Your task to perform on an android device: Open Google Chrome and open the bookmarks view Image 0: 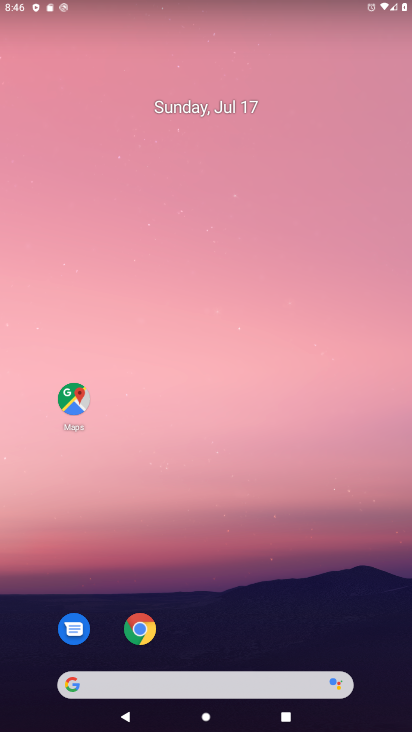
Step 0: click (144, 634)
Your task to perform on an android device: Open Google Chrome and open the bookmarks view Image 1: 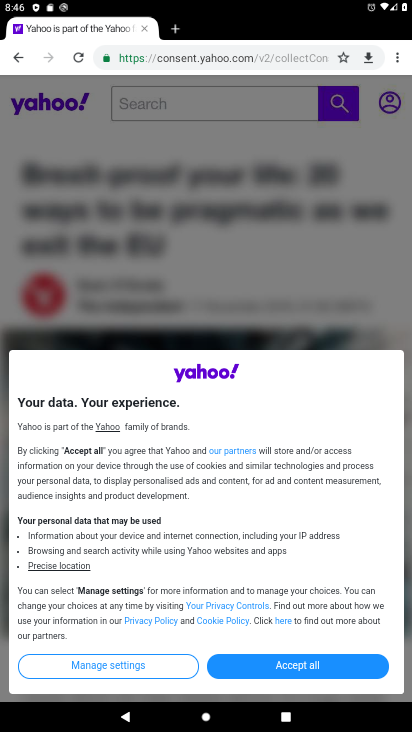
Step 1: click (398, 46)
Your task to perform on an android device: Open Google Chrome and open the bookmarks view Image 2: 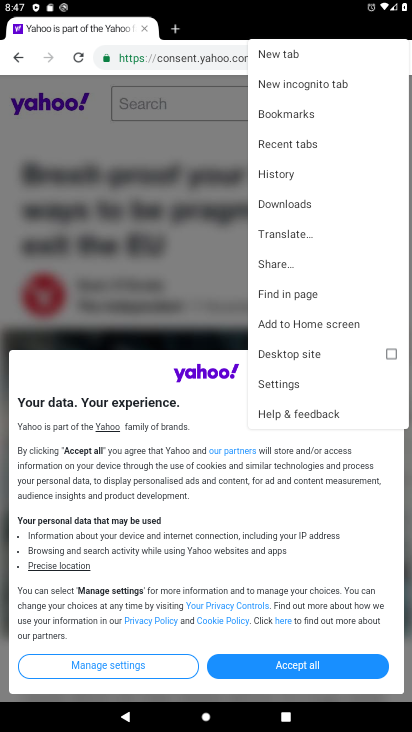
Step 2: click (300, 111)
Your task to perform on an android device: Open Google Chrome and open the bookmarks view Image 3: 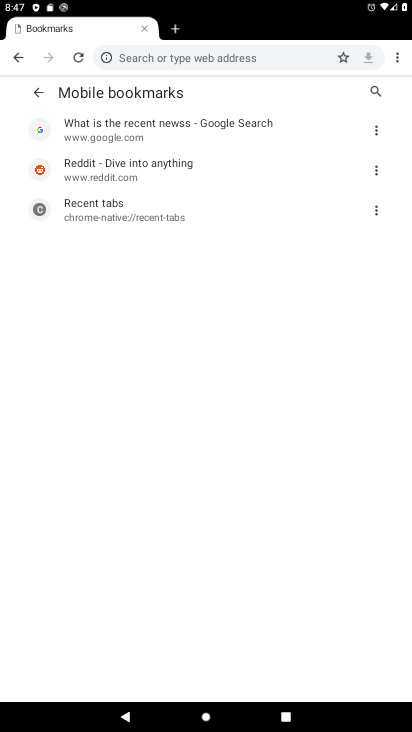
Step 3: task complete